Your task to perform on an android device: toggle wifi Image 0: 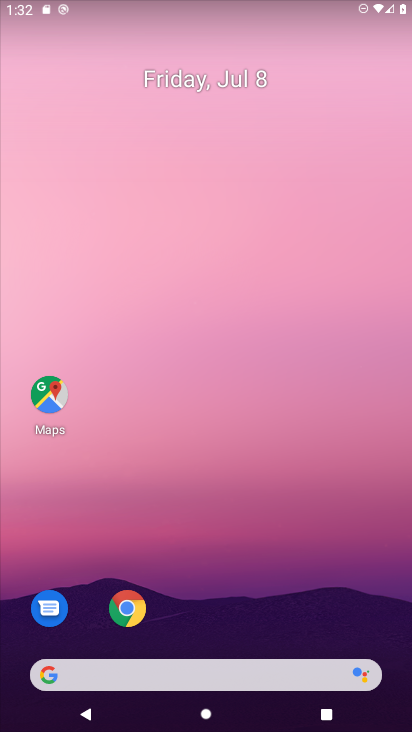
Step 0: drag from (333, 583) to (207, 15)
Your task to perform on an android device: toggle wifi Image 1: 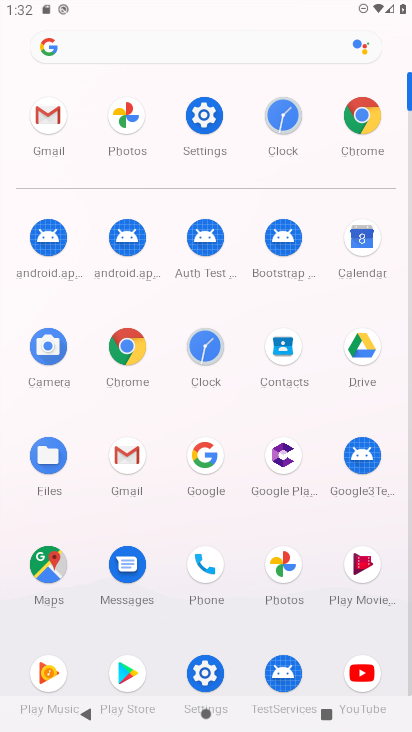
Step 1: click (206, 115)
Your task to perform on an android device: toggle wifi Image 2: 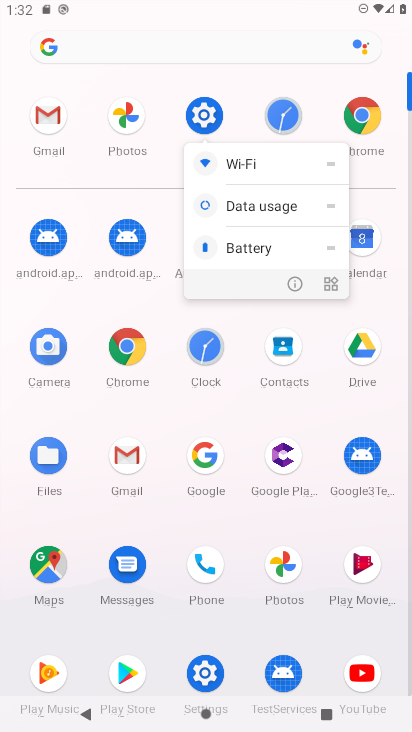
Step 2: click (237, 157)
Your task to perform on an android device: toggle wifi Image 3: 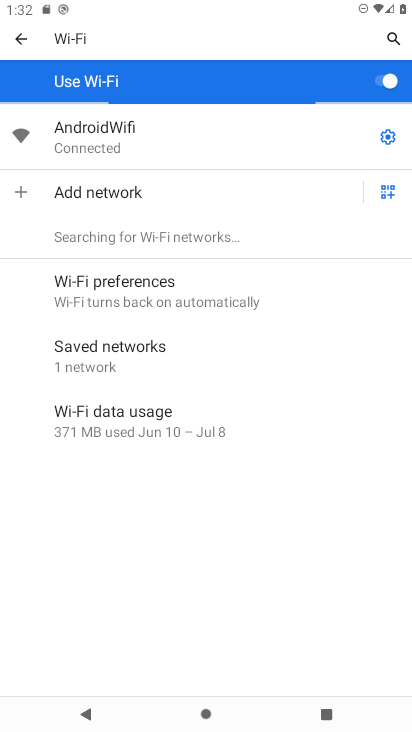
Step 3: task complete